Your task to perform on an android device: change timer sound Image 0: 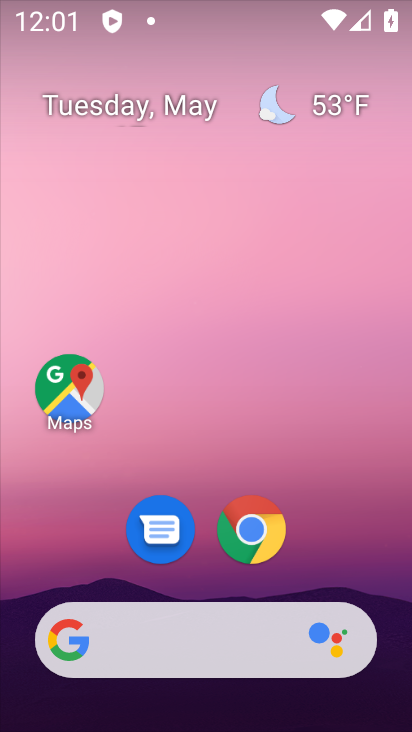
Step 0: drag from (197, 563) to (230, 14)
Your task to perform on an android device: change timer sound Image 1: 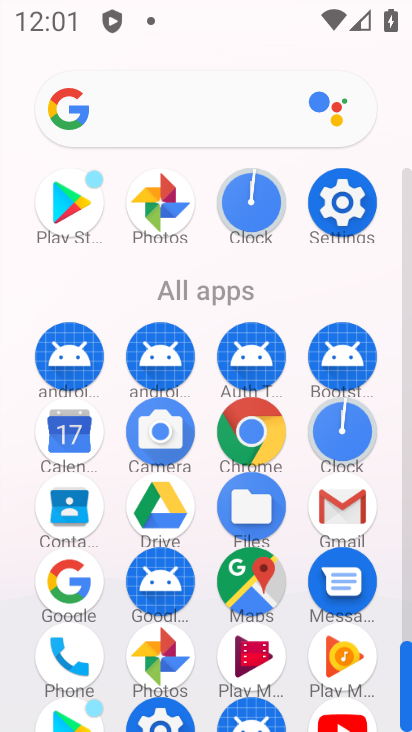
Step 1: click (264, 197)
Your task to perform on an android device: change timer sound Image 2: 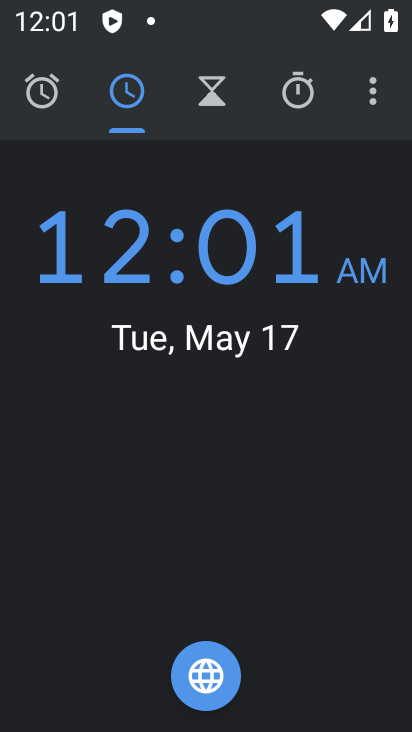
Step 2: click (389, 88)
Your task to perform on an android device: change timer sound Image 3: 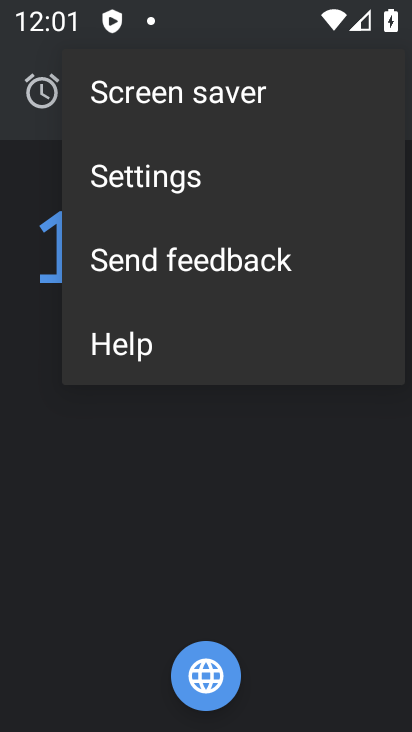
Step 3: click (300, 171)
Your task to perform on an android device: change timer sound Image 4: 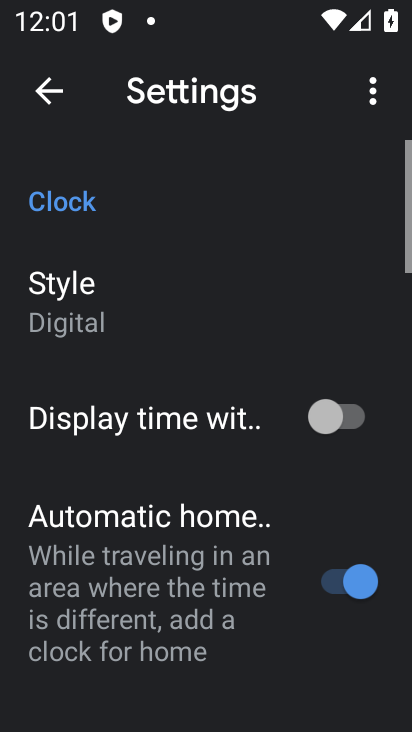
Step 4: drag from (192, 624) to (230, 181)
Your task to perform on an android device: change timer sound Image 5: 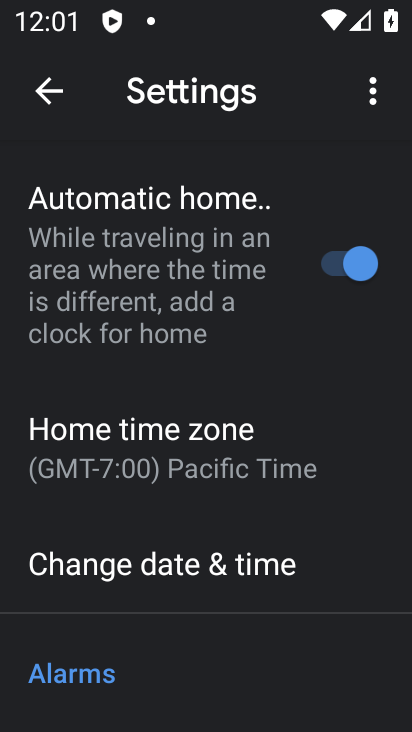
Step 5: drag from (161, 670) to (277, 189)
Your task to perform on an android device: change timer sound Image 6: 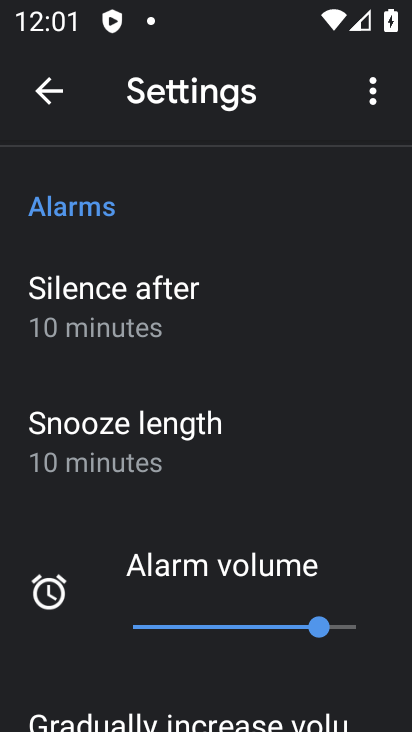
Step 6: drag from (135, 501) to (181, 86)
Your task to perform on an android device: change timer sound Image 7: 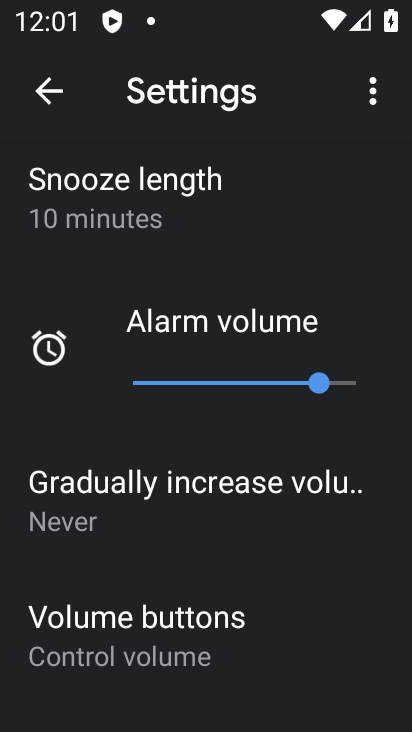
Step 7: drag from (198, 632) to (260, 331)
Your task to perform on an android device: change timer sound Image 8: 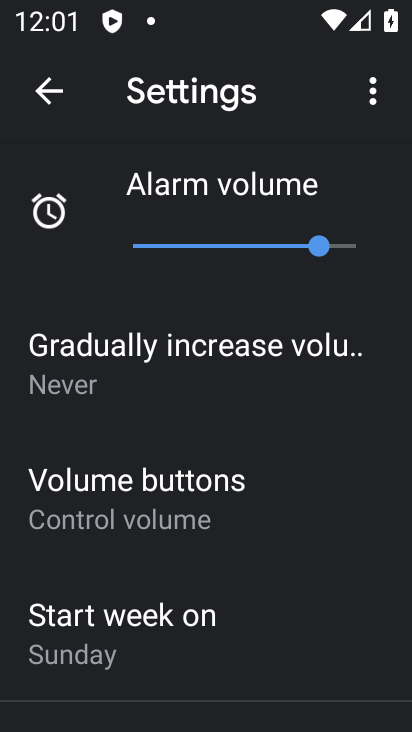
Step 8: drag from (101, 680) to (140, 322)
Your task to perform on an android device: change timer sound Image 9: 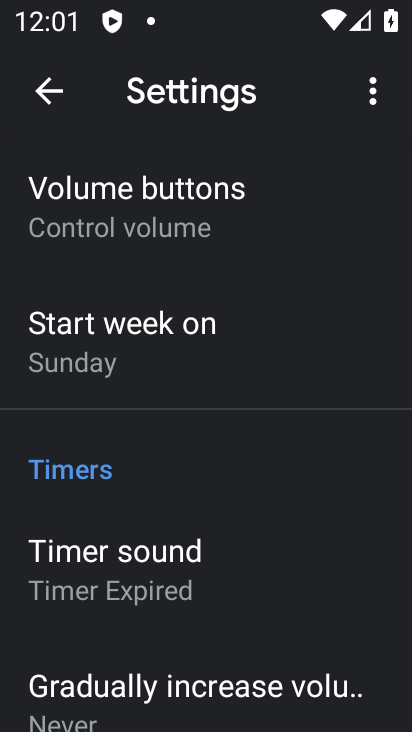
Step 9: click (208, 538)
Your task to perform on an android device: change timer sound Image 10: 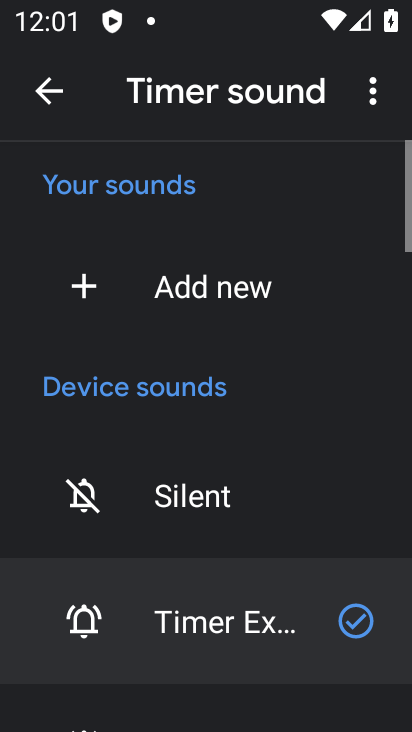
Step 10: click (210, 483)
Your task to perform on an android device: change timer sound Image 11: 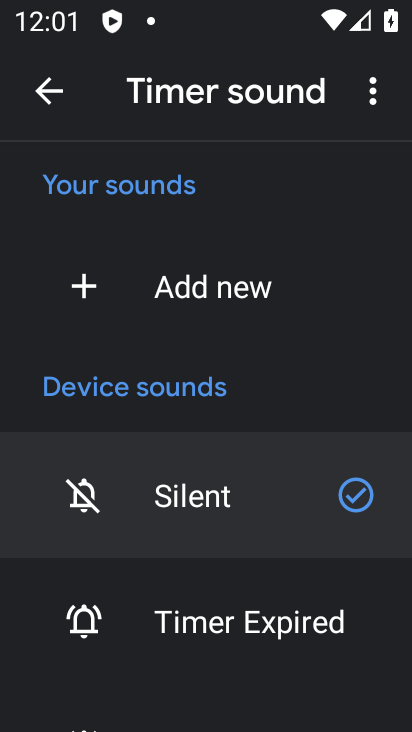
Step 11: task complete